Your task to perform on an android device: toggle airplane mode Image 0: 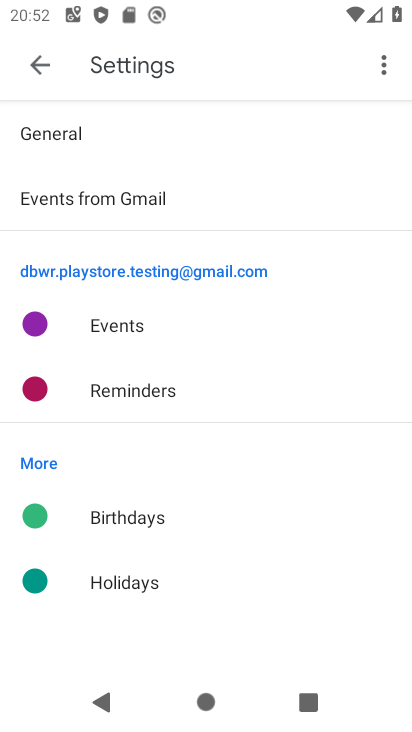
Step 0: press home button
Your task to perform on an android device: toggle airplane mode Image 1: 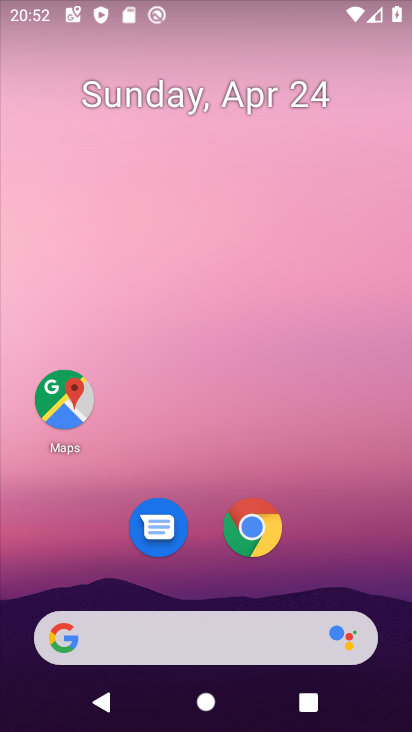
Step 1: drag from (351, 502) to (374, 2)
Your task to perform on an android device: toggle airplane mode Image 2: 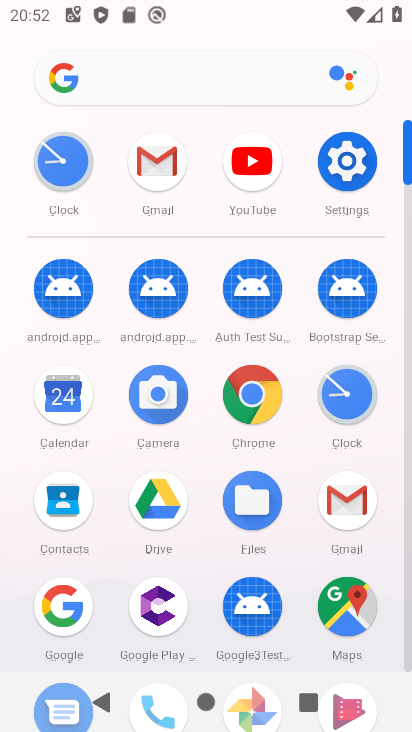
Step 2: click (350, 162)
Your task to perform on an android device: toggle airplane mode Image 3: 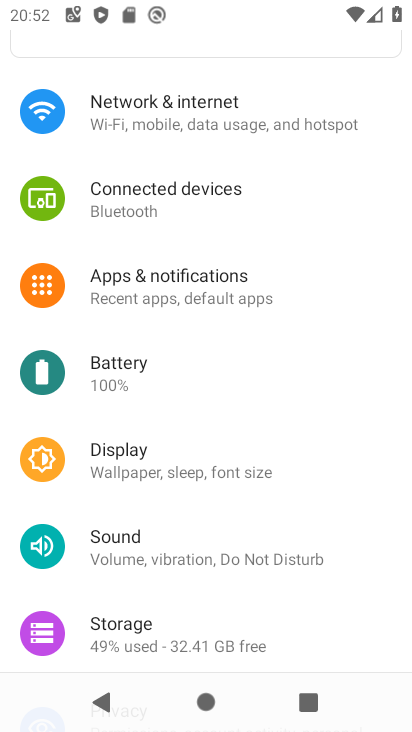
Step 3: click (164, 131)
Your task to perform on an android device: toggle airplane mode Image 4: 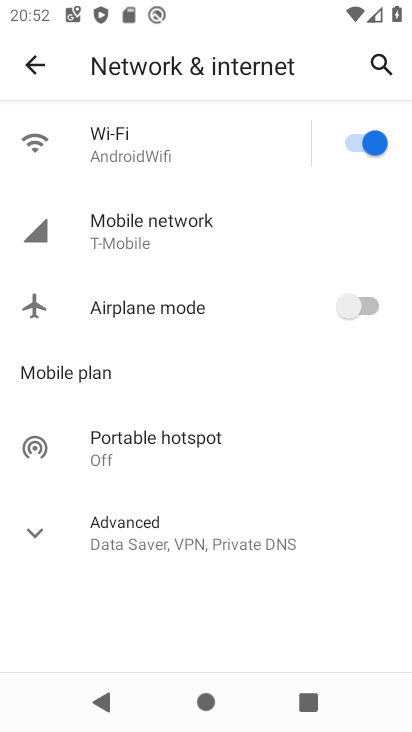
Step 4: click (357, 304)
Your task to perform on an android device: toggle airplane mode Image 5: 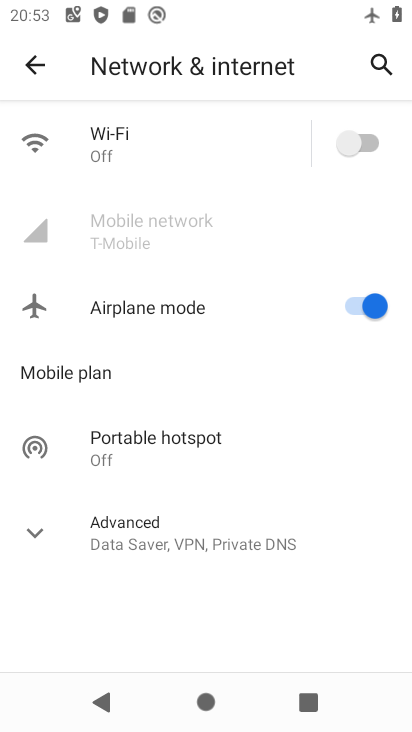
Step 5: task complete